Your task to perform on an android device: toggle notifications settings in the gmail app Image 0: 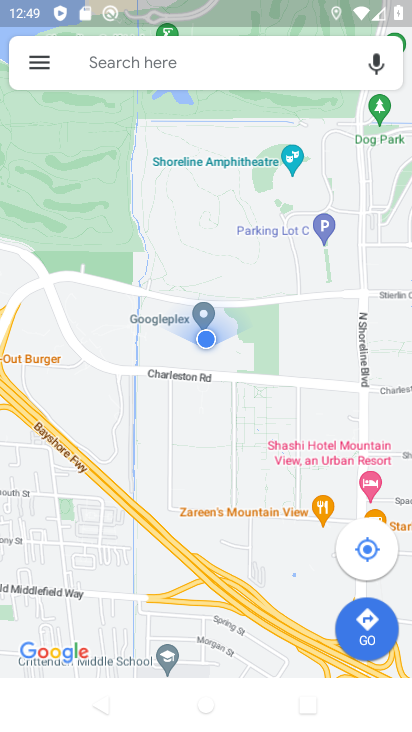
Step 0: press home button
Your task to perform on an android device: toggle notifications settings in the gmail app Image 1: 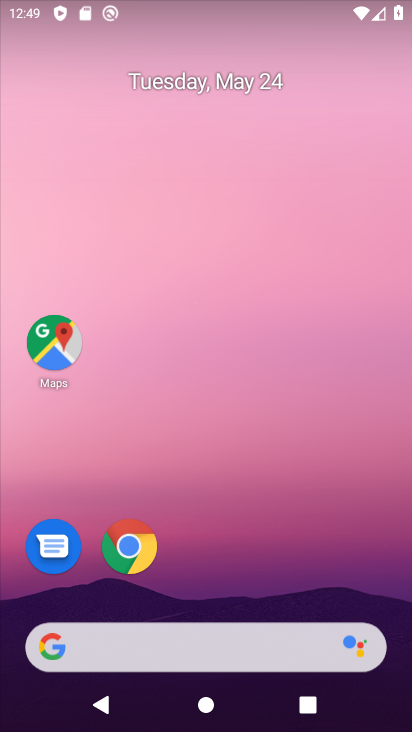
Step 1: drag from (180, 624) to (274, 197)
Your task to perform on an android device: toggle notifications settings in the gmail app Image 2: 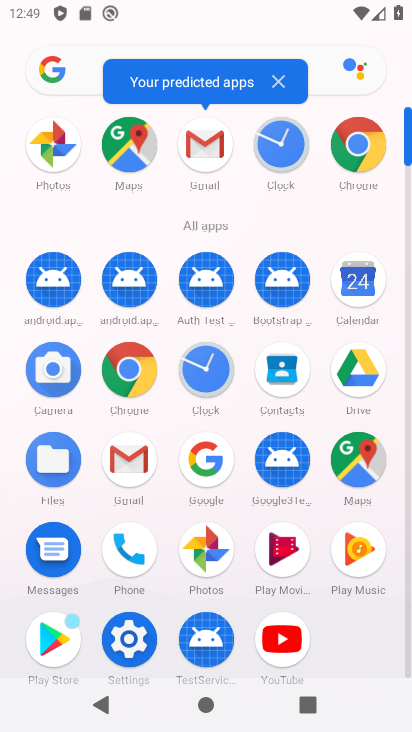
Step 2: click (123, 472)
Your task to perform on an android device: toggle notifications settings in the gmail app Image 3: 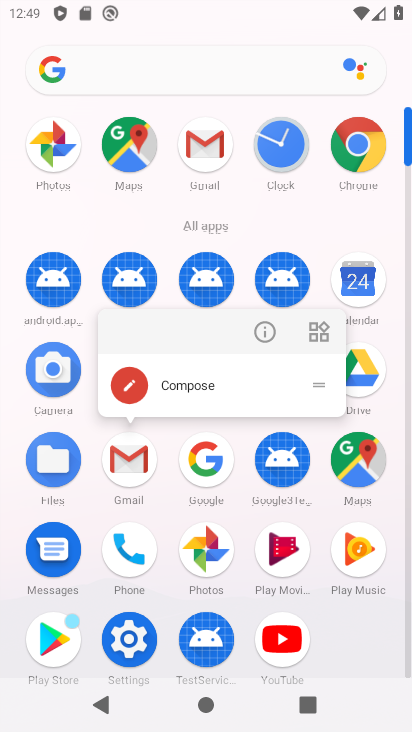
Step 3: click (134, 485)
Your task to perform on an android device: toggle notifications settings in the gmail app Image 4: 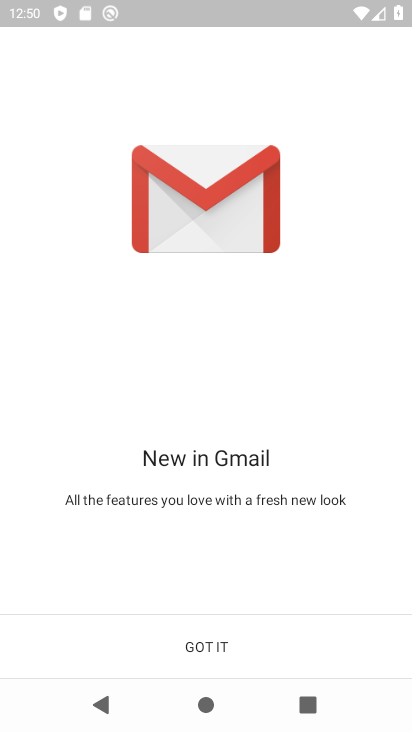
Step 4: click (239, 652)
Your task to perform on an android device: toggle notifications settings in the gmail app Image 5: 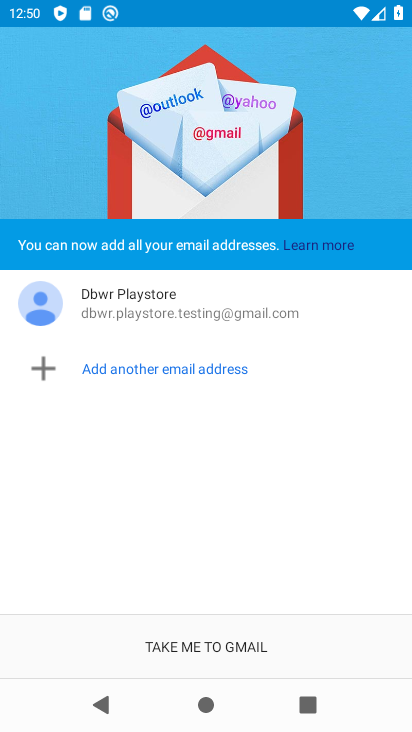
Step 5: click (238, 651)
Your task to perform on an android device: toggle notifications settings in the gmail app Image 6: 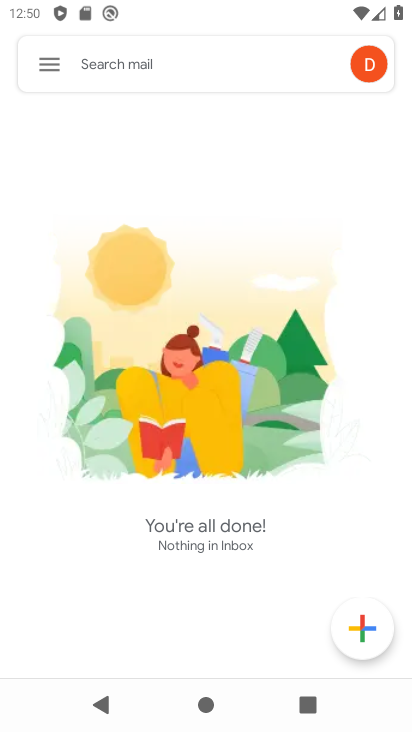
Step 6: click (68, 75)
Your task to perform on an android device: toggle notifications settings in the gmail app Image 7: 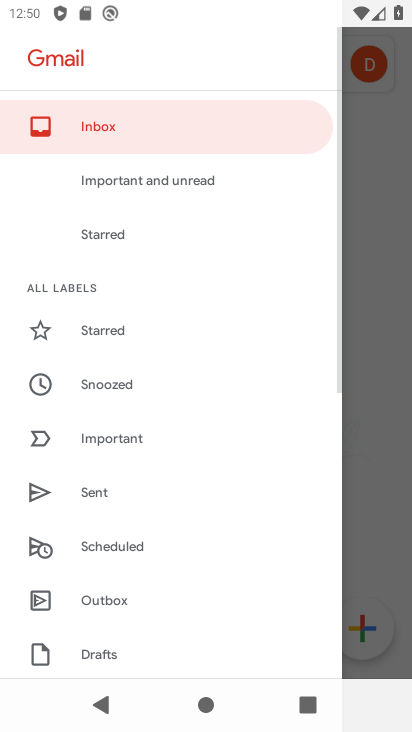
Step 7: drag from (93, 619) to (223, 129)
Your task to perform on an android device: toggle notifications settings in the gmail app Image 8: 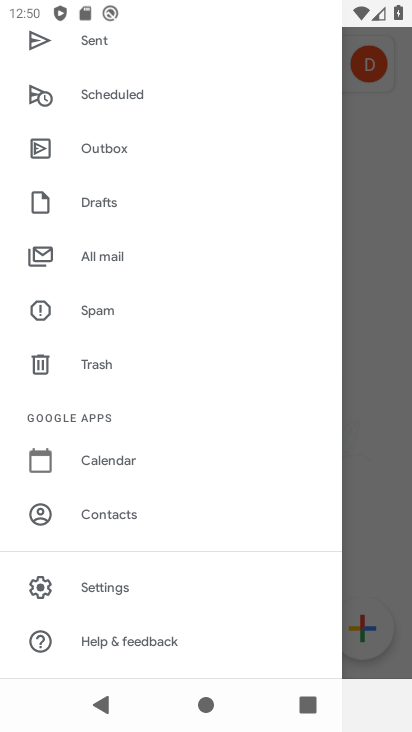
Step 8: click (172, 592)
Your task to perform on an android device: toggle notifications settings in the gmail app Image 9: 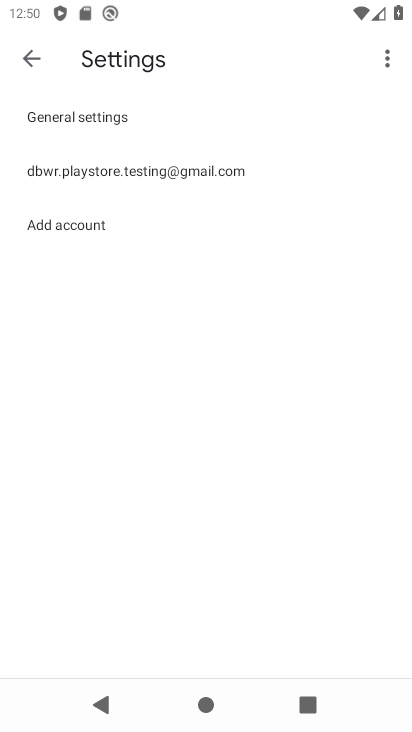
Step 9: click (210, 179)
Your task to perform on an android device: toggle notifications settings in the gmail app Image 10: 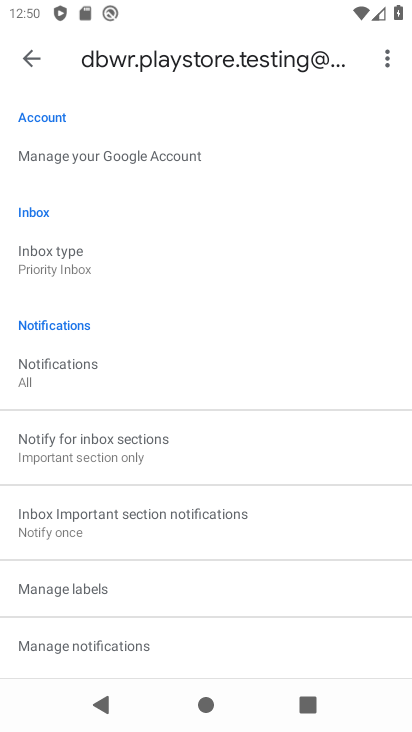
Step 10: drag from (194, 612) to (282, 239)
Your task to perform on an android device: toggle notifications settings in the gmail app Image 11: 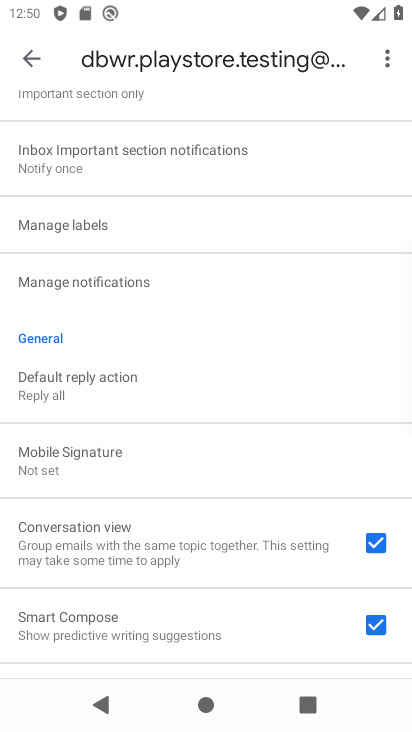
Step 11: click (163, 288)
Your task to perform on an android device: toggle notifications settings in the gmail app Image 12: 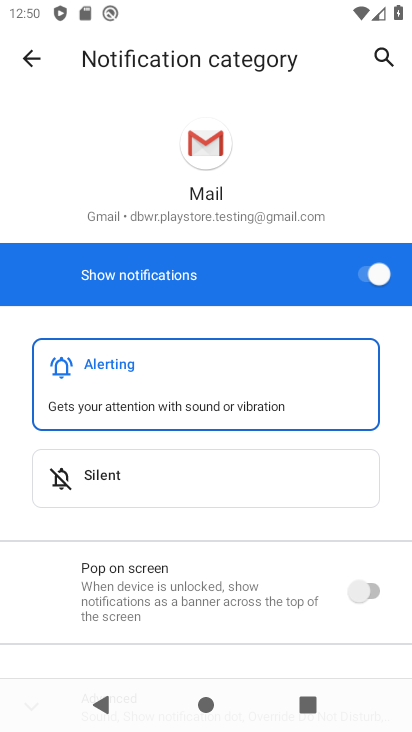
Step 12: click (357, 278)
Your task to perform on an android device: toggle notifications settings in the gmail app Image 13: 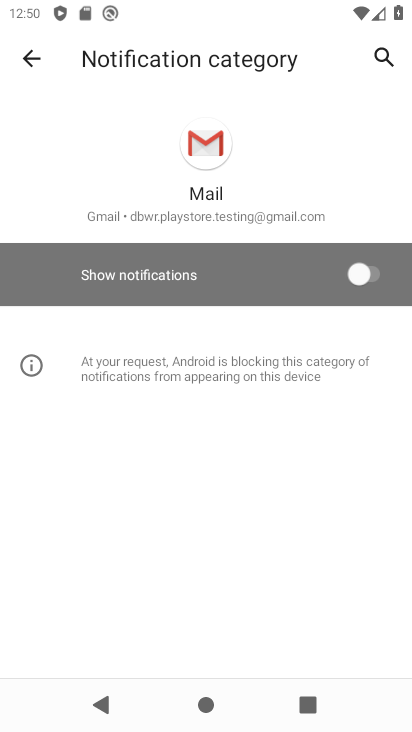
Step 13: task complete